Your task to perform on an android device: open device folders in google photos Image 0: 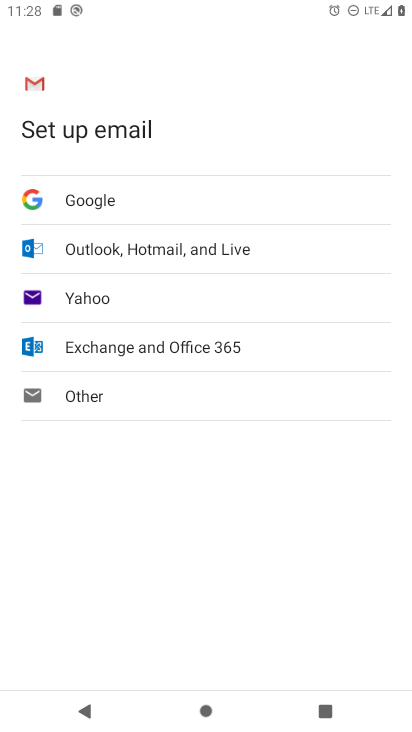
Step 0: press home button
Your task to perform on an android device: open device folders in google photos Image 1: 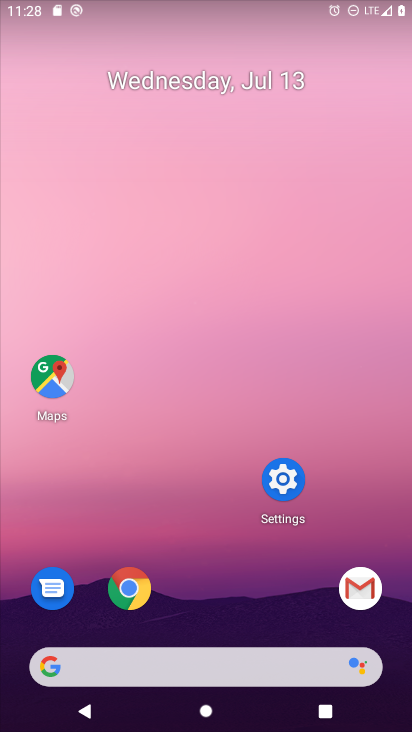
Step 1: drag from (247, 690) to (171, 168)
Your task to perform on an android device: open device folders in google photos Image 2: 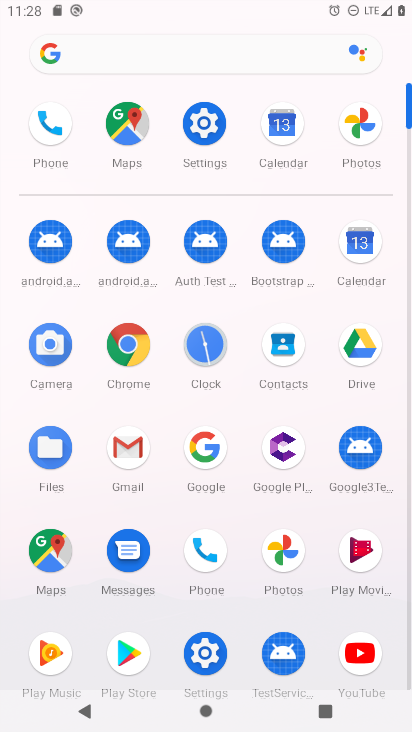
Step 2: click (282, 552)
Your task to perform on an android device: open device folders in google photos Image 3: 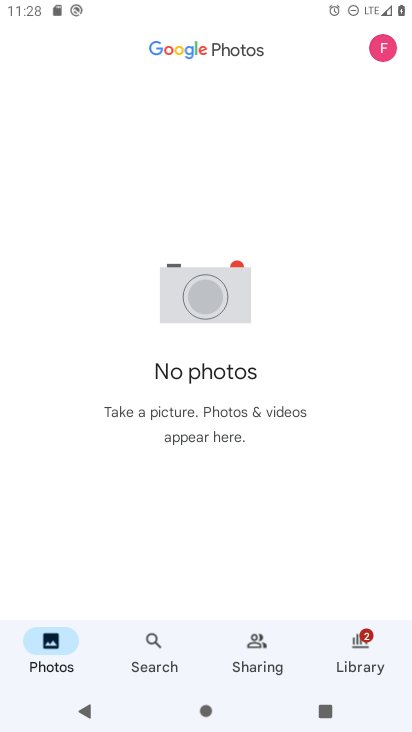
Step 3: click (153, 635)
Your task to perform on an android device: open device folders in google photos Image 4: 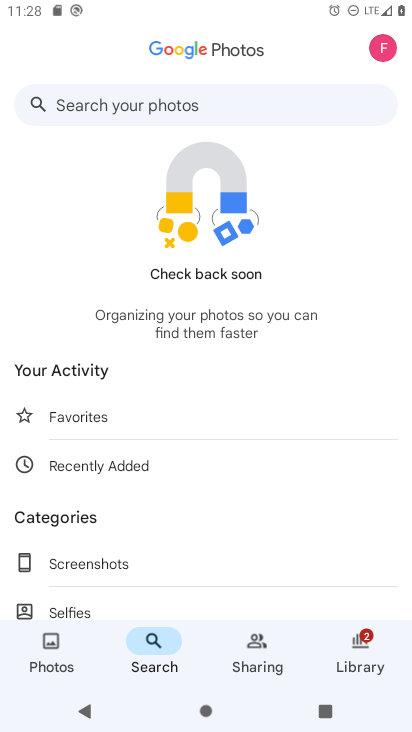
Step 4: click (74, 101)
Your task to perform on an android device: open device folders in google photos Image 5: 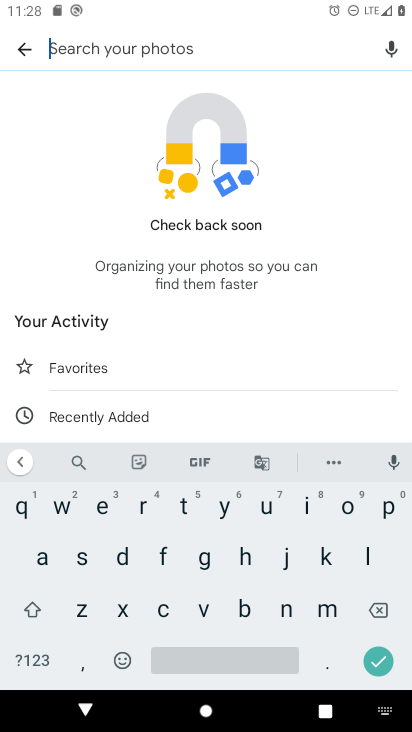
Step 5: click (120, 560)
Your task to perform on an android device: open device folders in google photos Image 6: 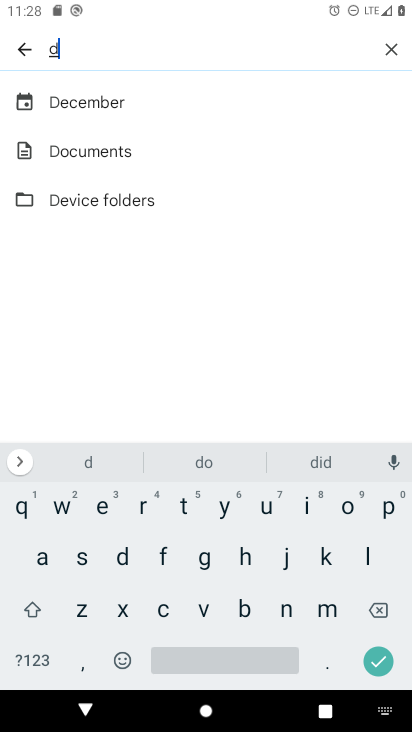
Step 6: click (103, 199)
Your task to perform on an android device: open device folders in google photos Image 7: 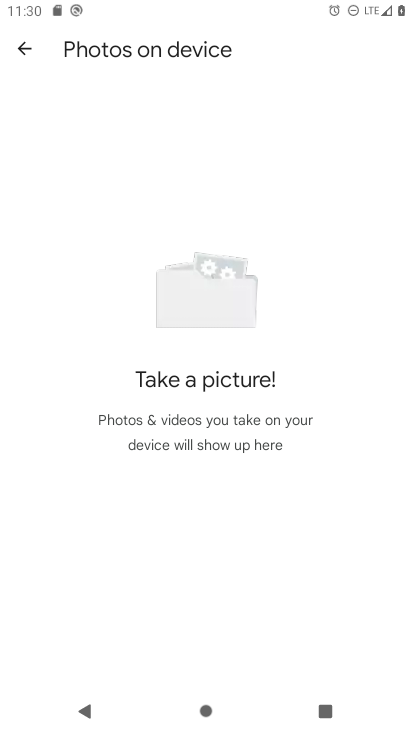
Step 7: task complete